Your task to perform on an android device: Go to Android settings Image 0: 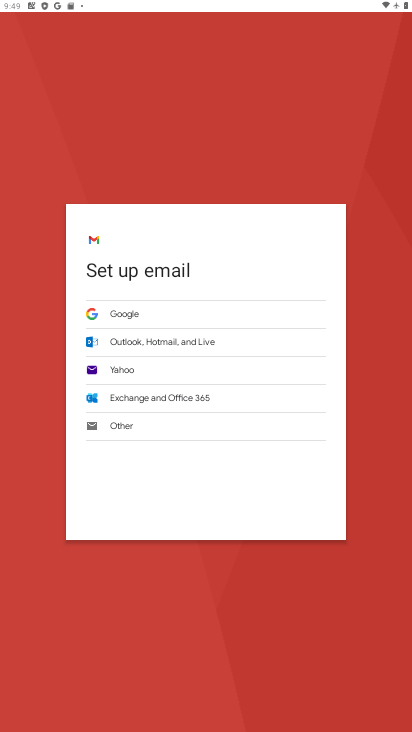
Step 0: press home button
Your task to perform on an android device: Go to Android settings Image 1: 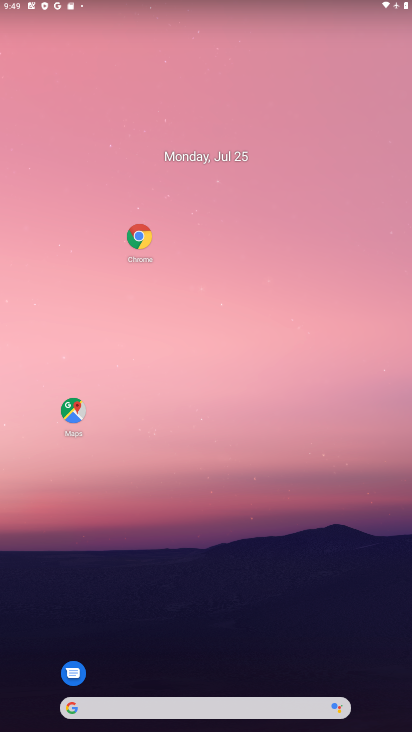
Step 1: drag from (254, 648) to (201, 1)
Your task to perform on an android device: Go to Android settings Image 2: 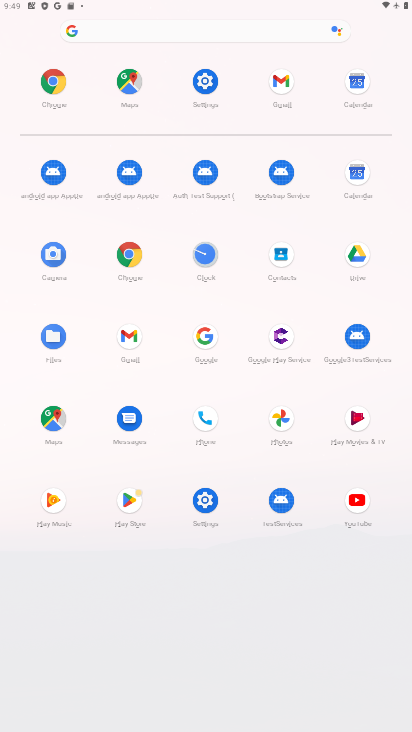
Step 2: click (215, 103)
Your task to perform on an android device: Go to Android settings Image 3: 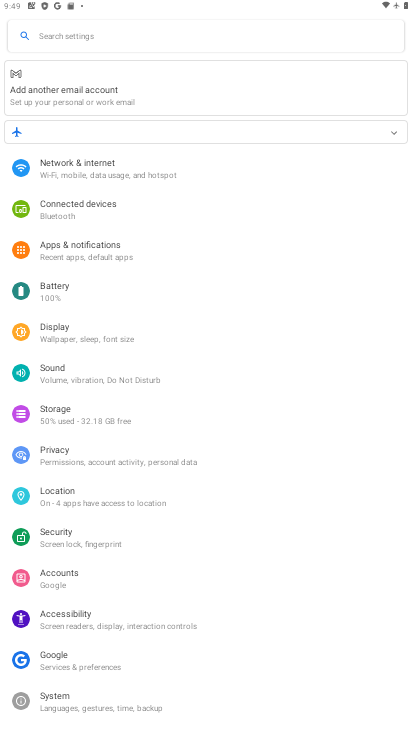
Step 3: drag from (162, 677) to (215, 76)
Your task to perform on an android device: Go to Android settings Image 4: 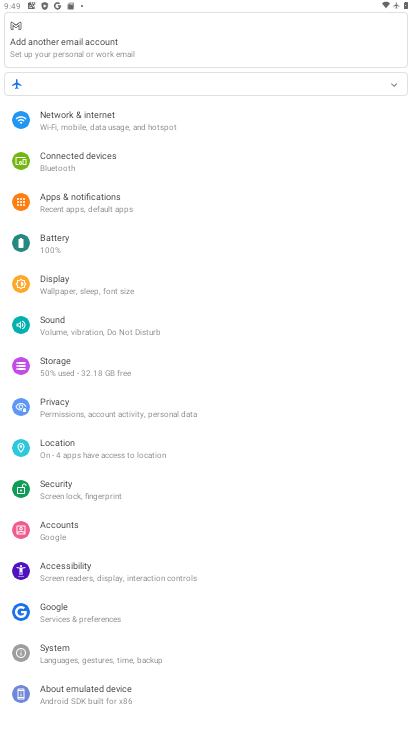
Step 4: click (134, 685)
Your task to perform on an android device: Go to Android settings Image 5: 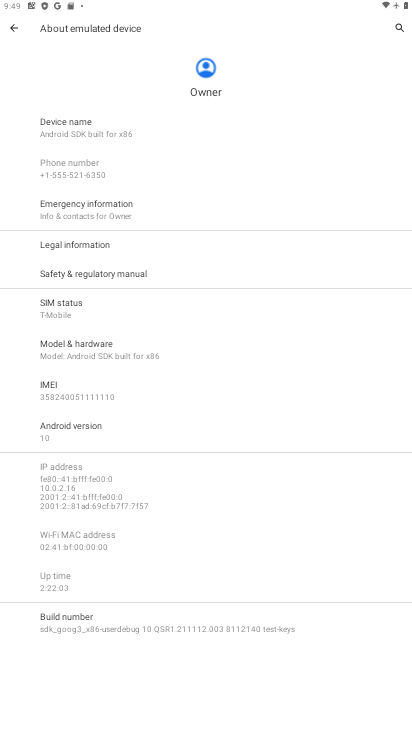
Step 5: task complete